Your task to perform on an android device: Do I have any events tomorrow? Image 0: 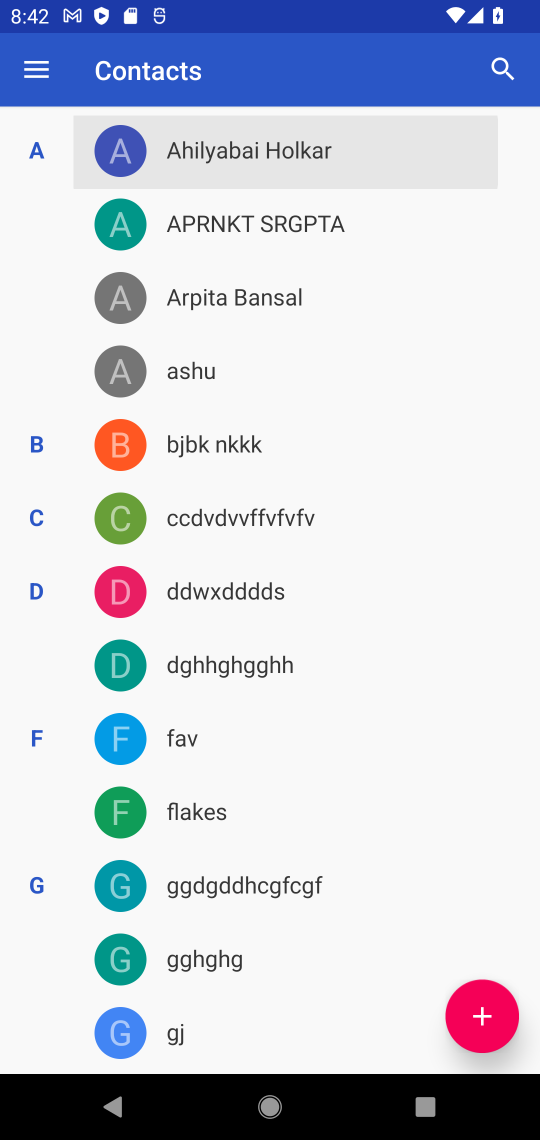
Step 0: press home button
Your task to perform on an android device: Do I have any events tomorrow? Image 1: 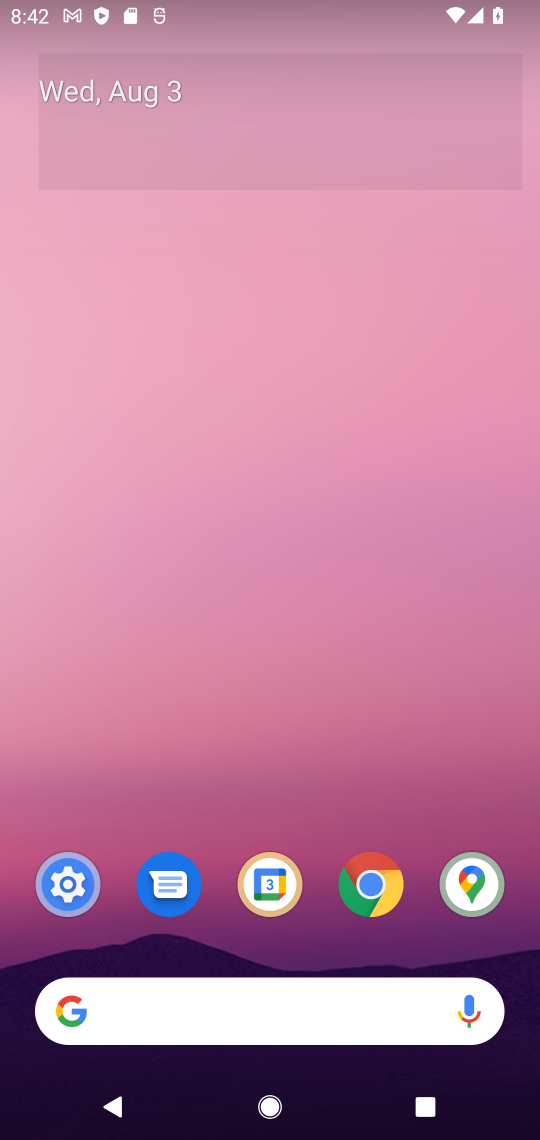
Step 1: click (301, 894)
Your task to perform on an android device: Do I have any events tomorrow? Image 2: 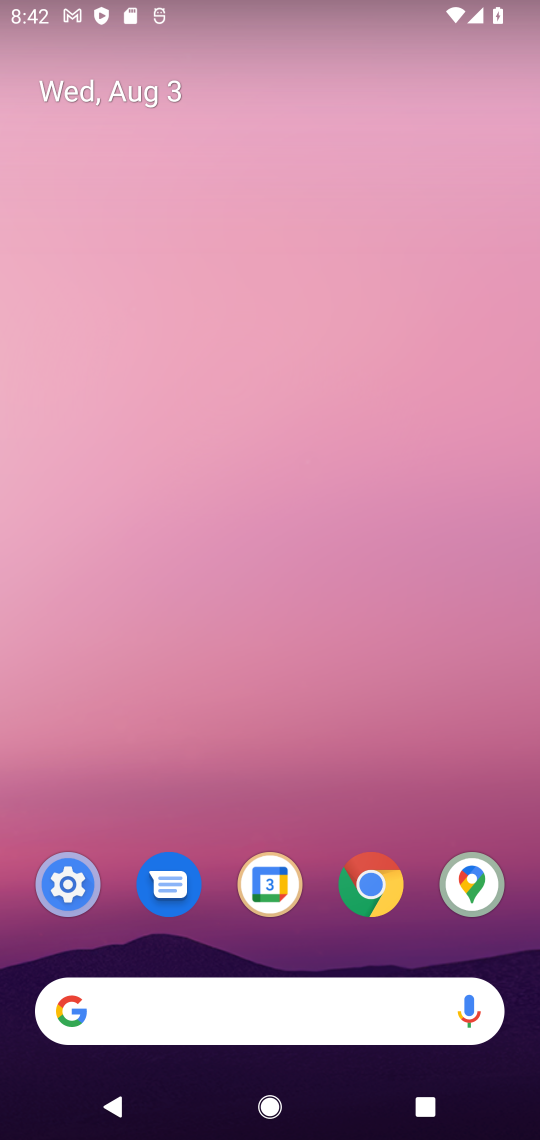
Step 2: click (289, 882)
Your task to perform on an android device: Do I have any events tomorrow? Image 3: 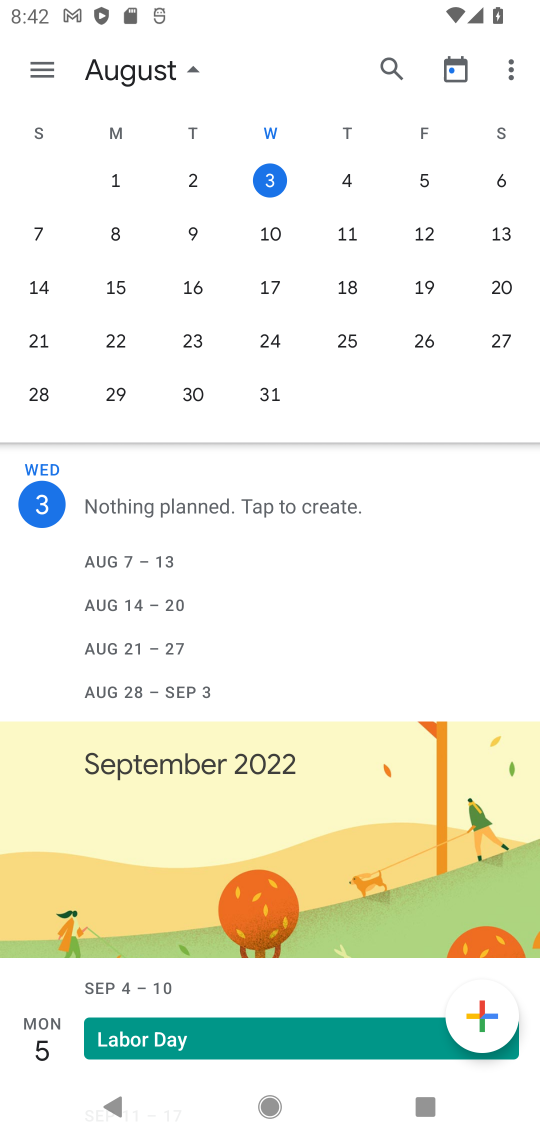
Step 3: task complete